Your task to perform on an android device: Go to Yahoo.com Image 0: 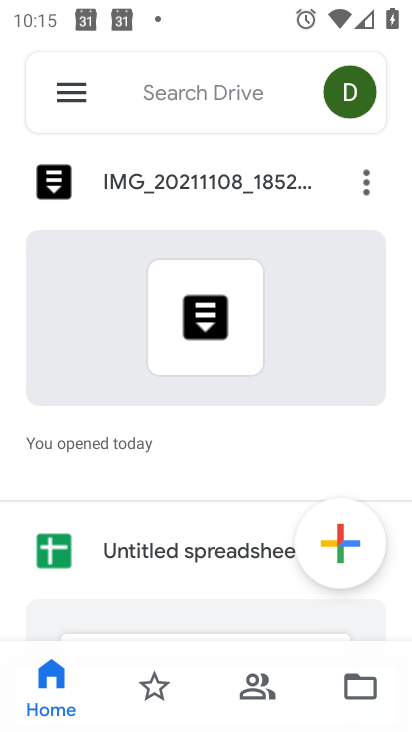
Step 0: press home button
Your task to perform on an android device: Go to Yahoo.com Image 1: 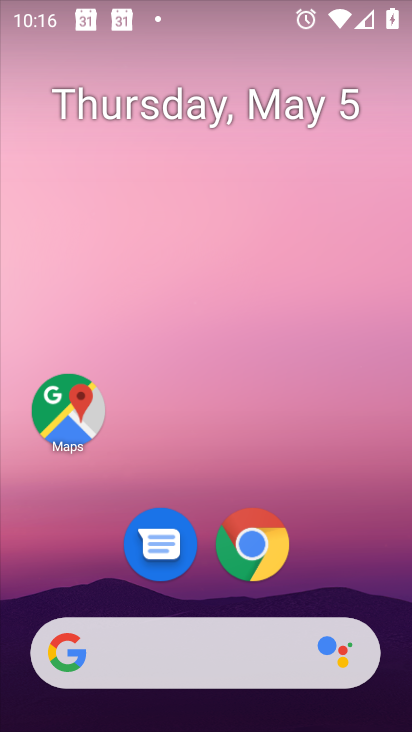
Step 1: click (253, 527)
Your task to perform on an android device: Go to Yahoo.com Image 2: 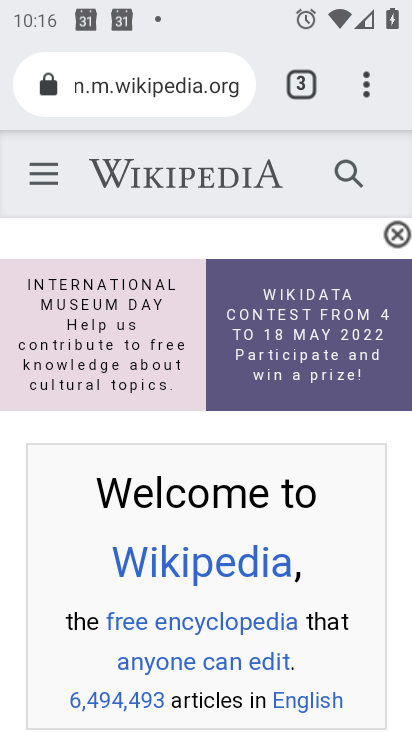
Step 2: click (185, 74)
Your task to perform on an android device: Go to Yahoo.com Image 3: 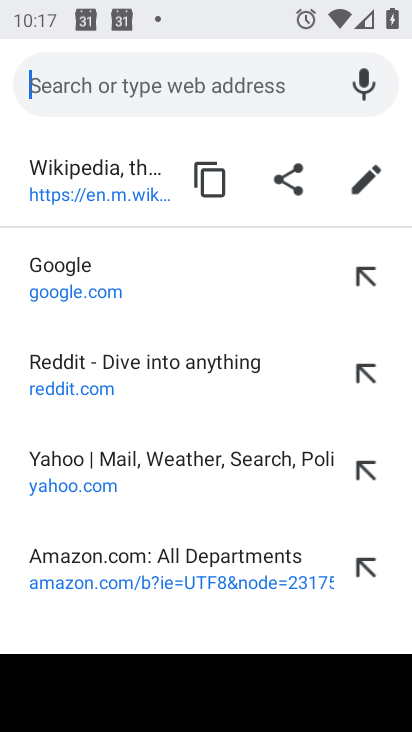
Step 3: type "yahoo.com"
Your task to perform on an android device: Go to Yahoo.com Image 4: 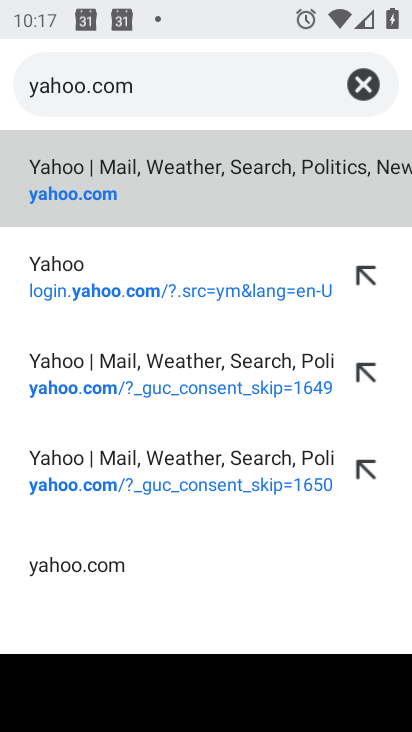
Step 4: click (106, 160)
Your task to perform on an android device: Go to Yahoo.com Image 5: 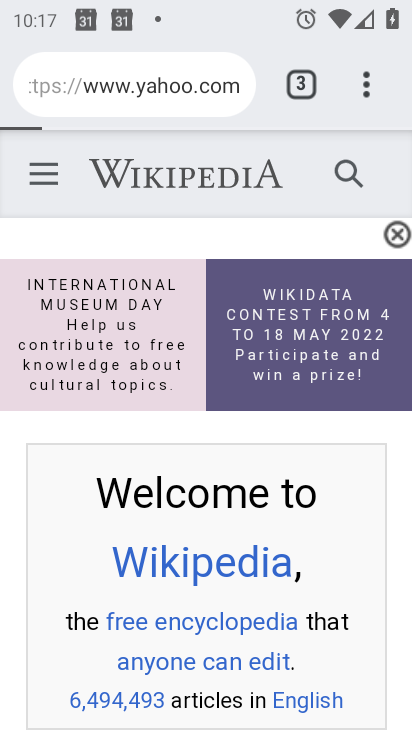
Step 5: task complete